Your task to perform on an android device: turn off smart reply in the gmail app Image 0: 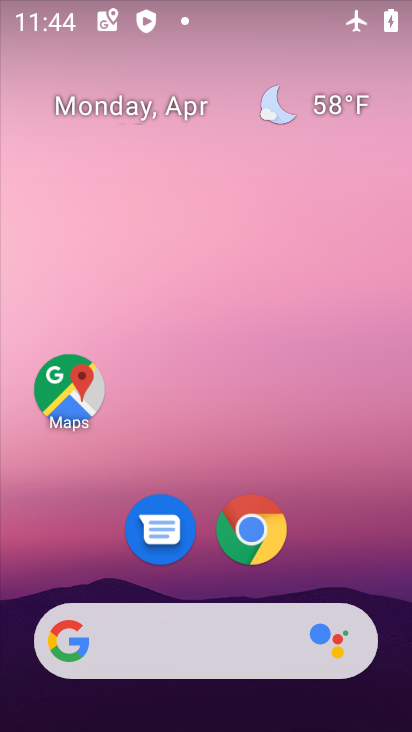
Step 0: drag from (389, 597) to (179, 59)
Your task to perform on an android device: turn off smart reply in the gmail app Image 1: 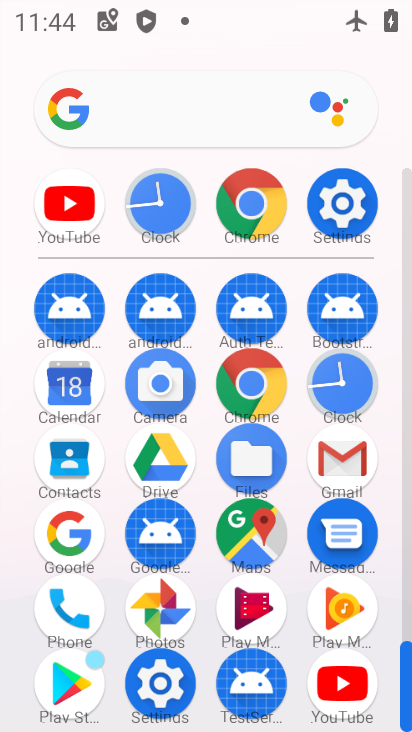
Step 1: click (347, 472)
Your task to perform on an android device: turn off smart reply in the gmail app Image 2: 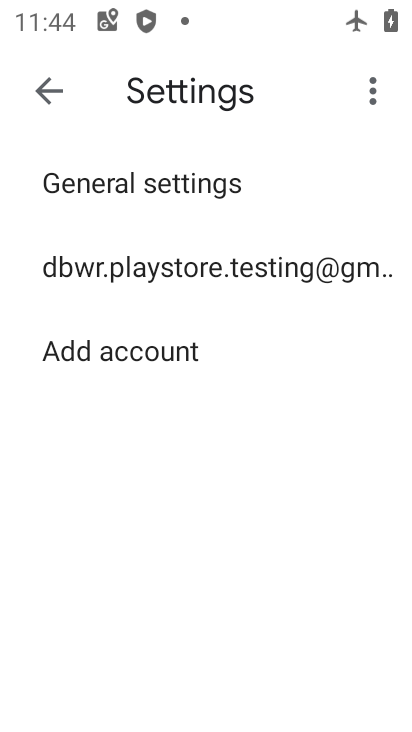
Step 2: click (160, 288)
Your task to perform on an android device: turn off smart reply in the gmail app Image 3: 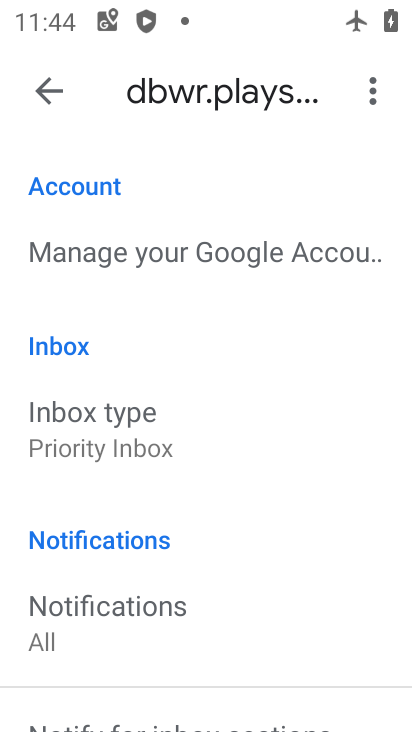
Step 3: task complete